Your task to perform on an android device: change the upload size in google photos Image 0: 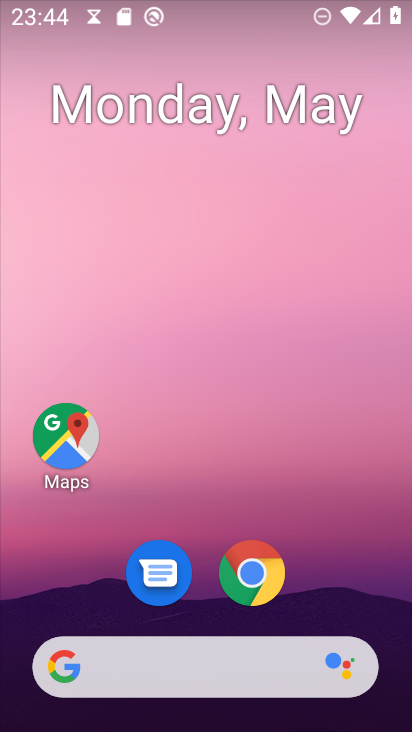
Step 0: drag from (319, 558) to (201, 28)
Your task to perform on an android device: change the upload size in google photos Image 1: 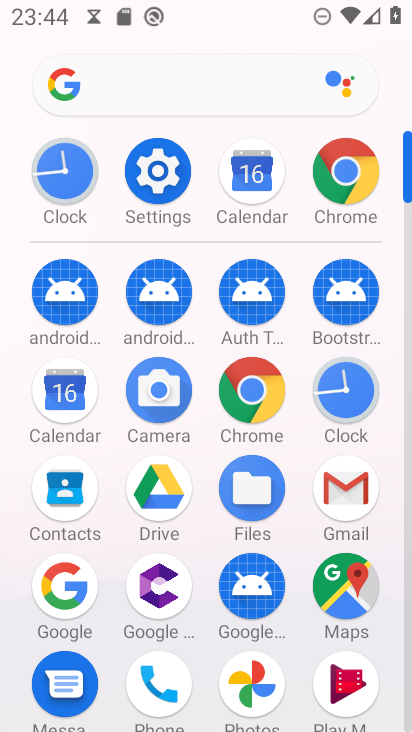
Step 1: click (237, 672)
Your task to perform on an android device: change the upload size in google photos Image 2: 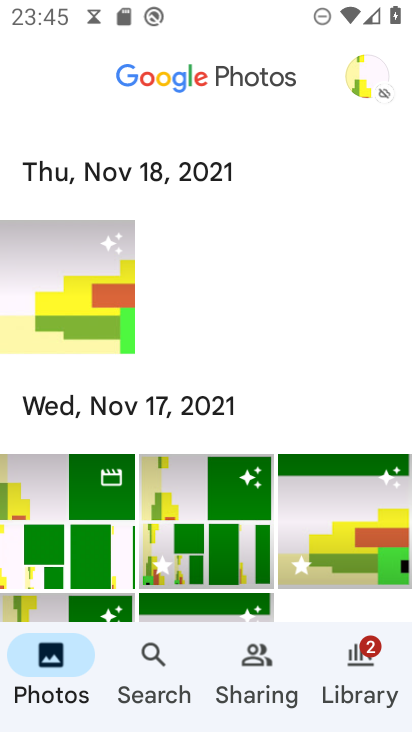
Step 2: drag from (263, 437) to (266, 144)
Your task to perform on an android device: change the upload size in google photos Image 3: 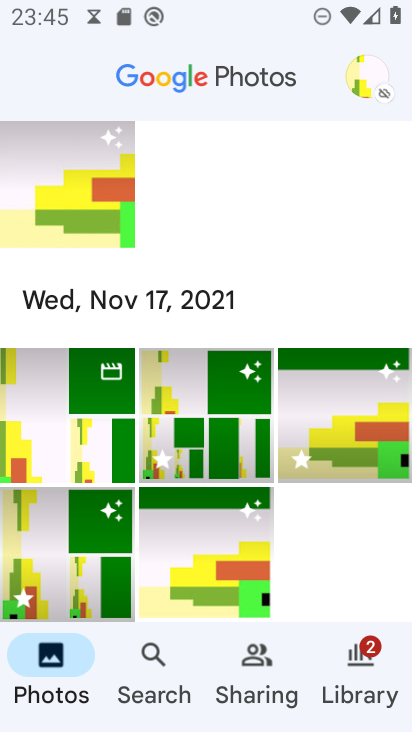
Step 3: click (365, 86)
Your task to perform on an android device: change the upload size in google photos Image 4: 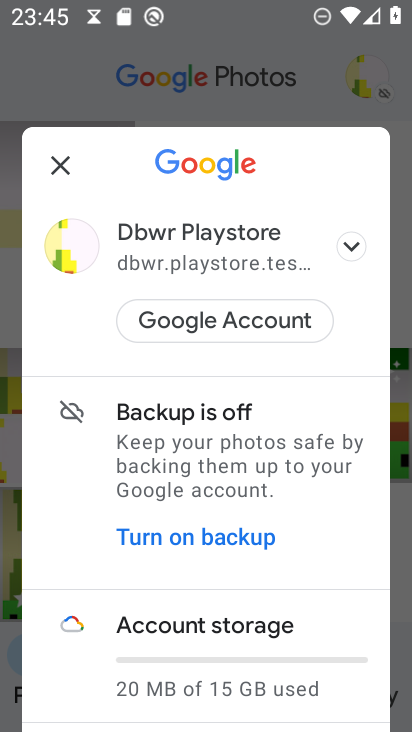
Step 4: drag from (234, 595) to (212, 128)
Your task to perform on an android device: change the upload size in google photos Image 5: 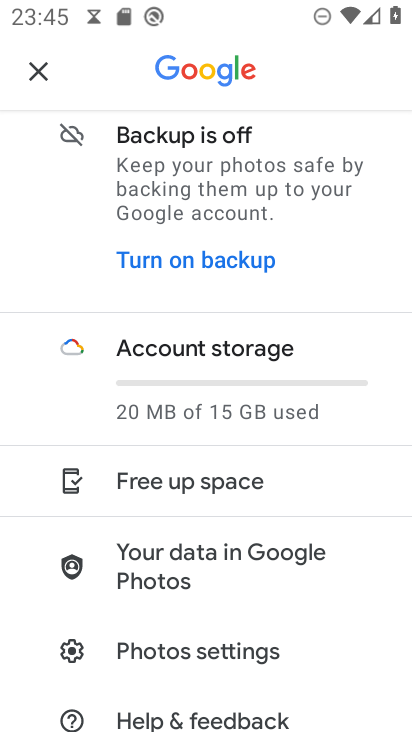
Step 5: click (213, 651)
Your task to perform on an android device: change the upload size in google photos Image 6: 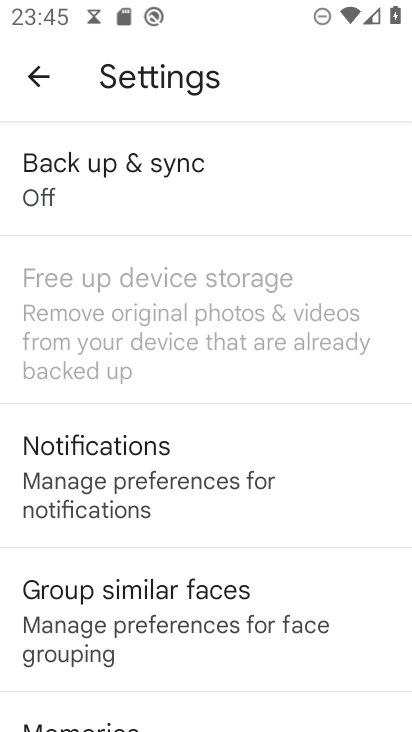
Step 6: click (170, 161)
Your task to perform on an android device: change the upload size in google photos Image 7: 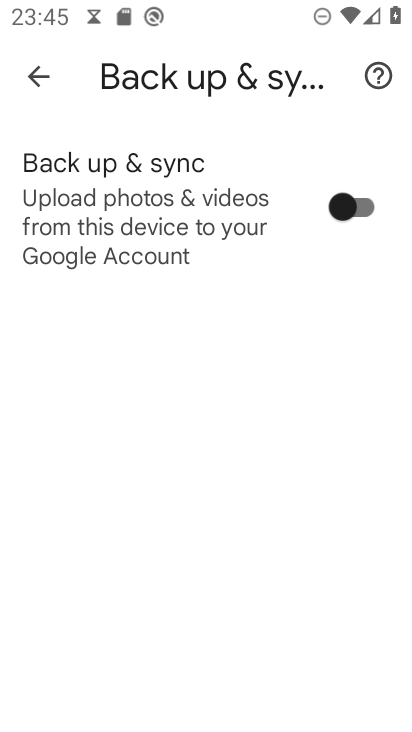
Step 7: click (343, 217)
Your task to perform on an android device: change the upload size in google photos Image 8: 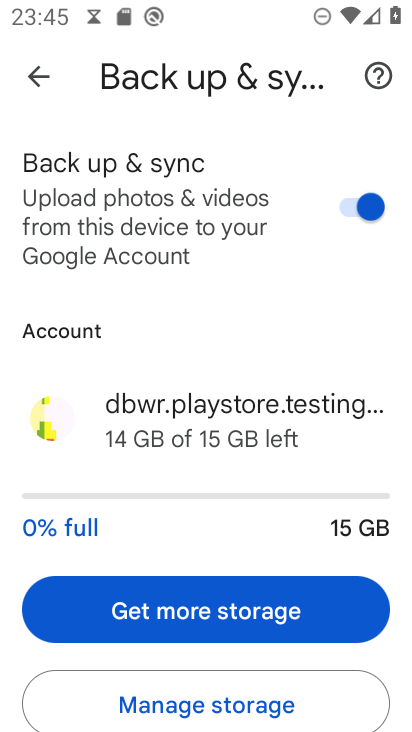
Step 8: drag from (212, 496) to (179, 119)
Your task to perform on an android device: change the upload size in google photos Image 9: 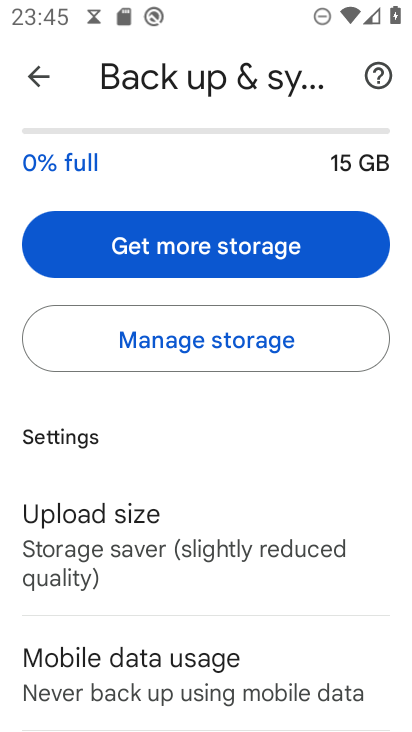
Step 9: click (160, 544)
Your task to perform on an android device: change the upload size in google photos Image 10: 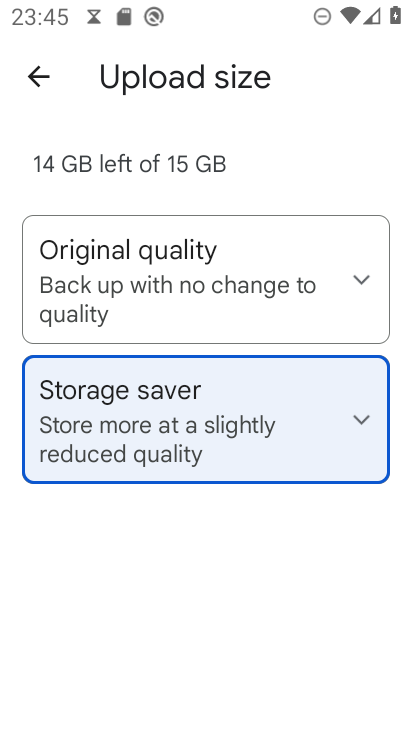
Step 10: click (122, 288)
Your task to perform on an android device: change the upload size in google photos Image 11: 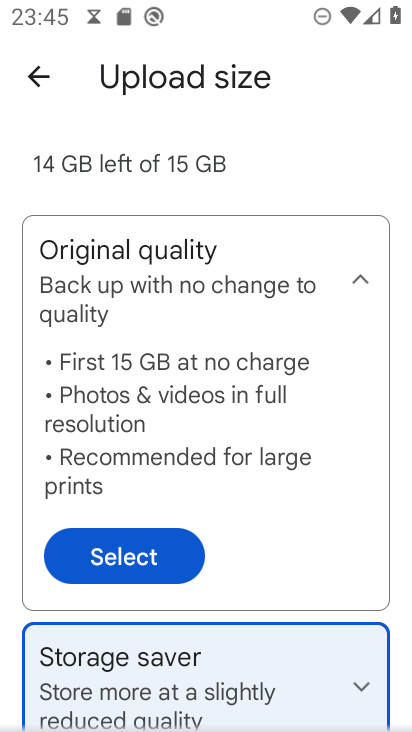
Step 11: click (97, 567)
Your task to perform on an android device: change the upload size in google photos Image 12: 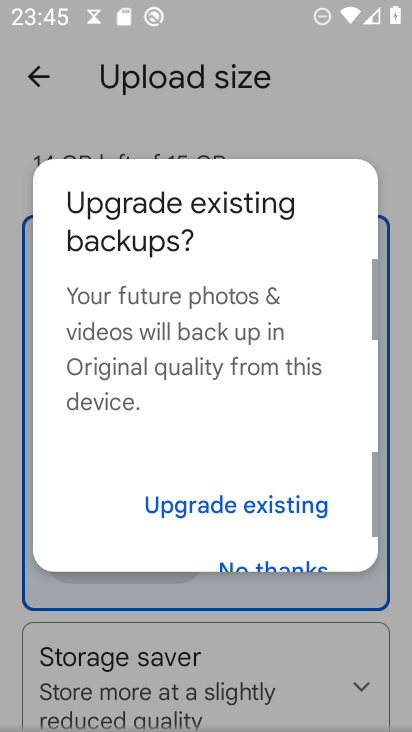
Step 12: task complete